Your task to perform on an android device: Open the calendar app, open the side menu, and click the "Day" option Image 0: 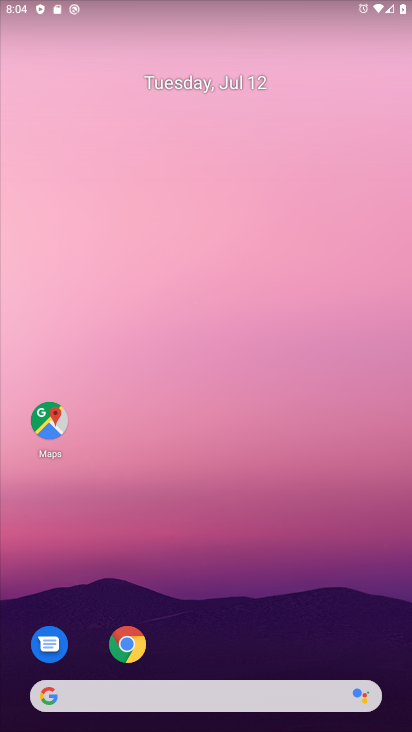
Step 0: drag from (22, 690) to (210, 222)
Your task to perform on an android device: Open the calendar app, open the side menu, and click the "Day" option Image 1: 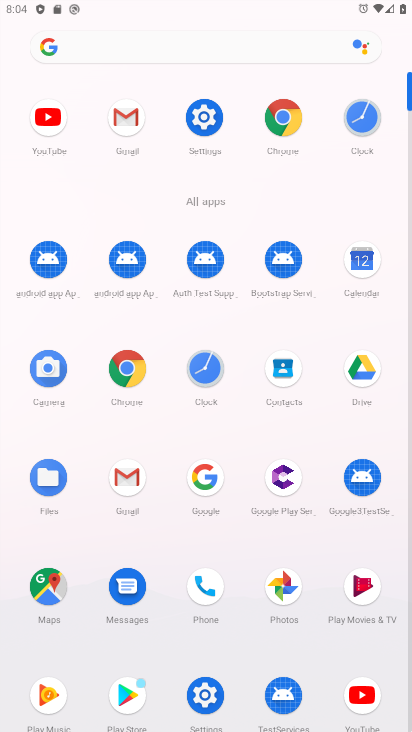
Step 1: click (371, 268)
Your task to perform on an android device: Open the calendar app, open the side menu, and click the "Day" option Image 2: 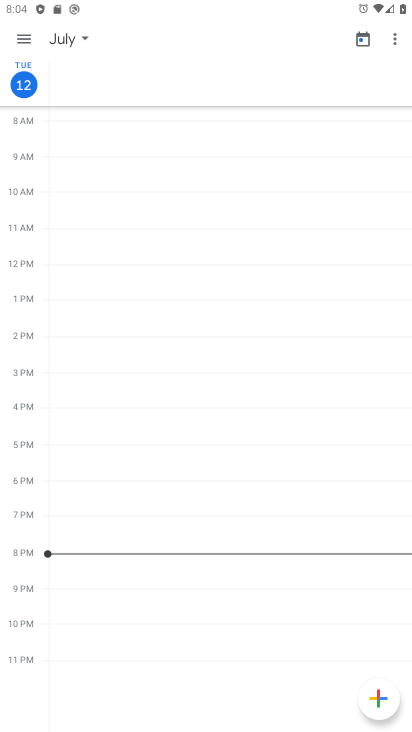
Step 2: click (14, 46)
Your task to perform on an android device: Open the calendar app, open the side menu, and click the "Day" option Image 3: 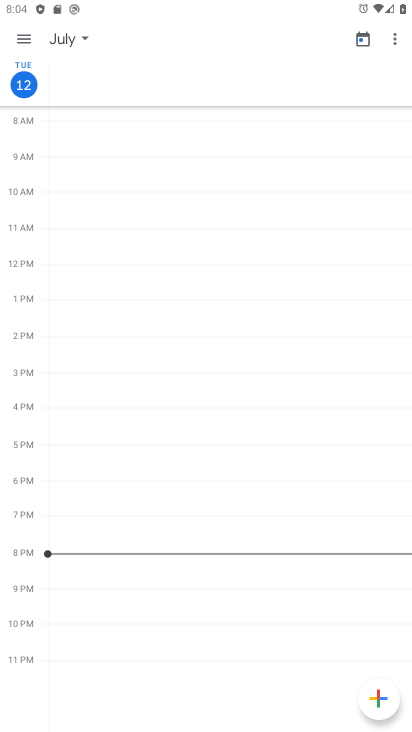
Step 3: click (21, 38)
Your task to perform on an android device: Open the calendar app, open the side menu, and click the "Day" option Image 4: 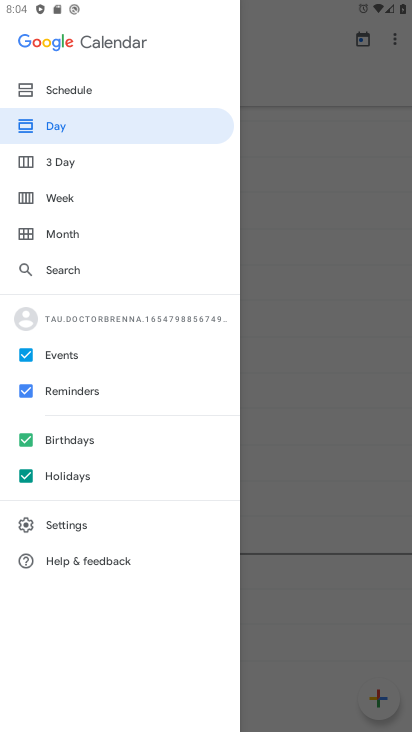
Step 4: click (66, 128)
Your task to perform on an android device: Open the calendar app, open the side menu, and click the "Day" option Image 5: 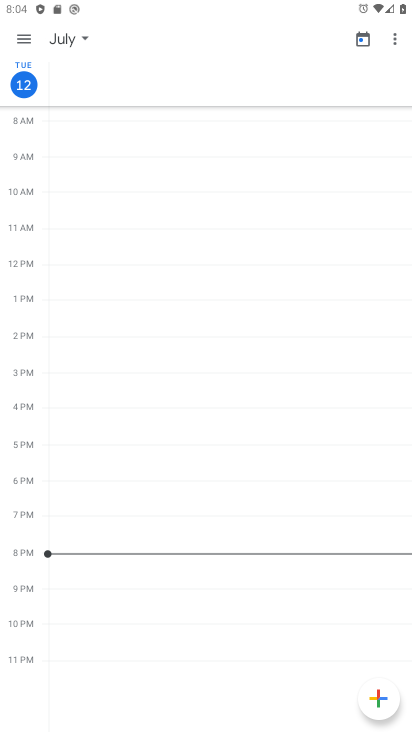
Step 5: task complete